Your task to perform on an android device: Open Yahoo.com Image 0: 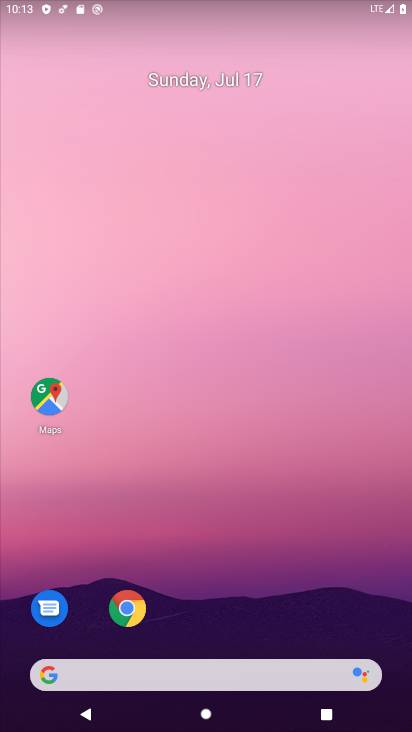
Step 0: drag from (304, 640) to (4, 364)
Your task to perform on an android device: Open Yahoo.com Image 1: 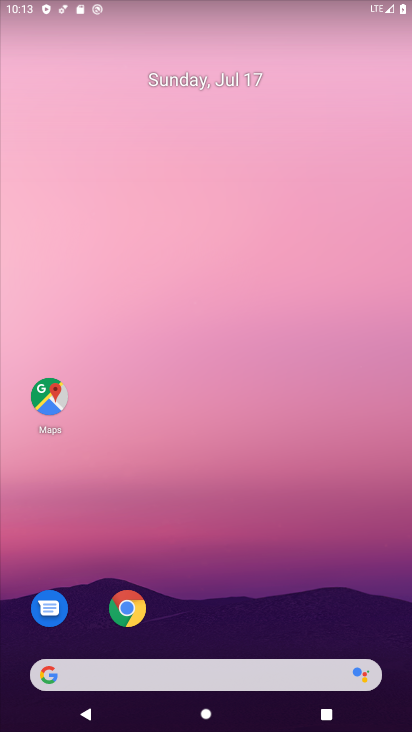
Step 1: drag from (265, 623) to (188, 2)
Your task to perform on an android device: Open Yahoo.com Image 2: 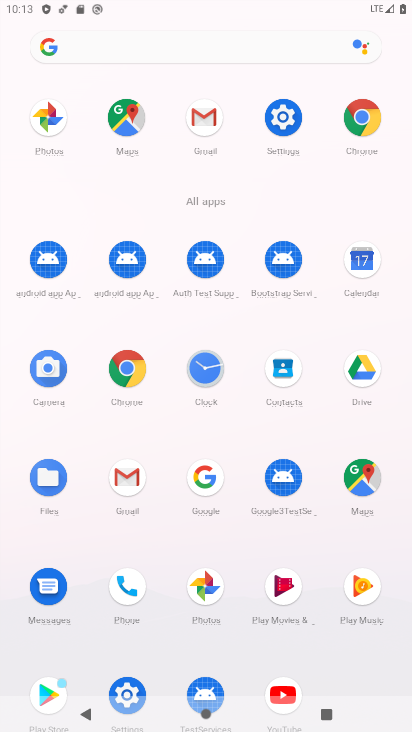
Step 2: click (205, 476)
Your task to perform on an android device: Open Yahoo.com Image 3: 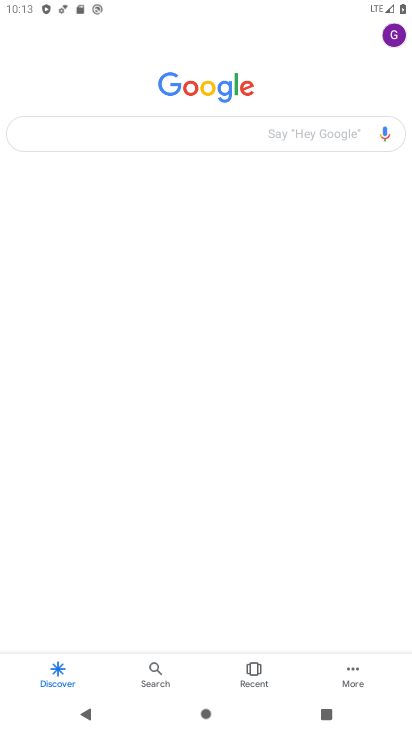
Step 3: click (147, 134)
Your task to perform on an android device: Open Yahoo.com Image 4: 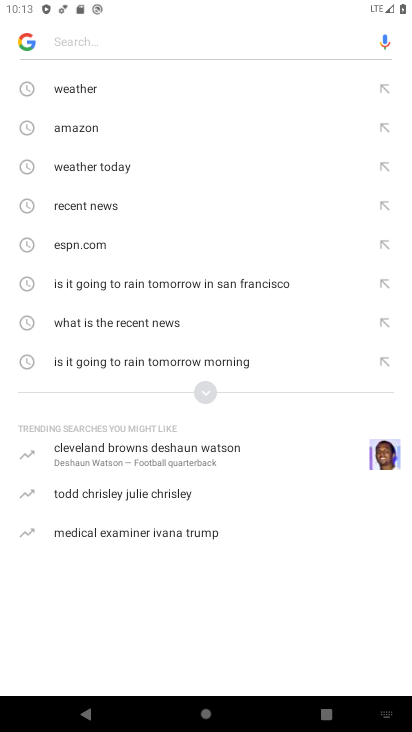
Step 4: type "Yahoo.com"
Your task to perform on an android device: Open Yahoo.com Image 5: 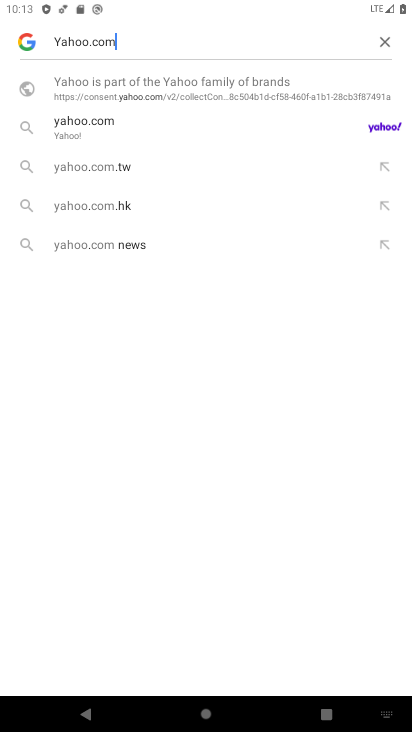
Step 5: click (102, 91)
Your task to perform on an android device: Open Yahoo.com Image 6: 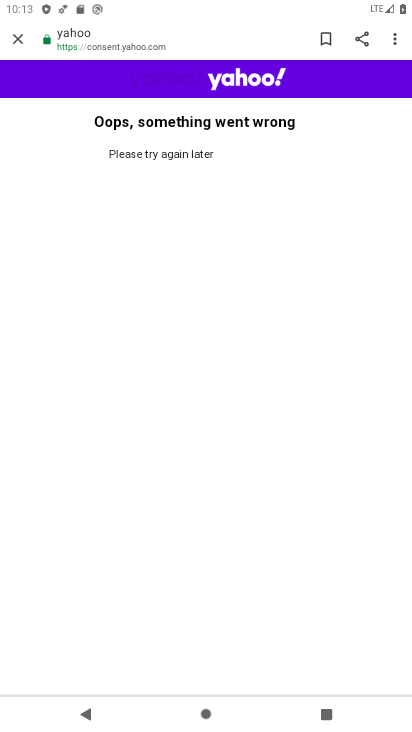
Step 6: task complete